Your task to perform on an android device: Search for pizza restaurants on Maps Image 0: 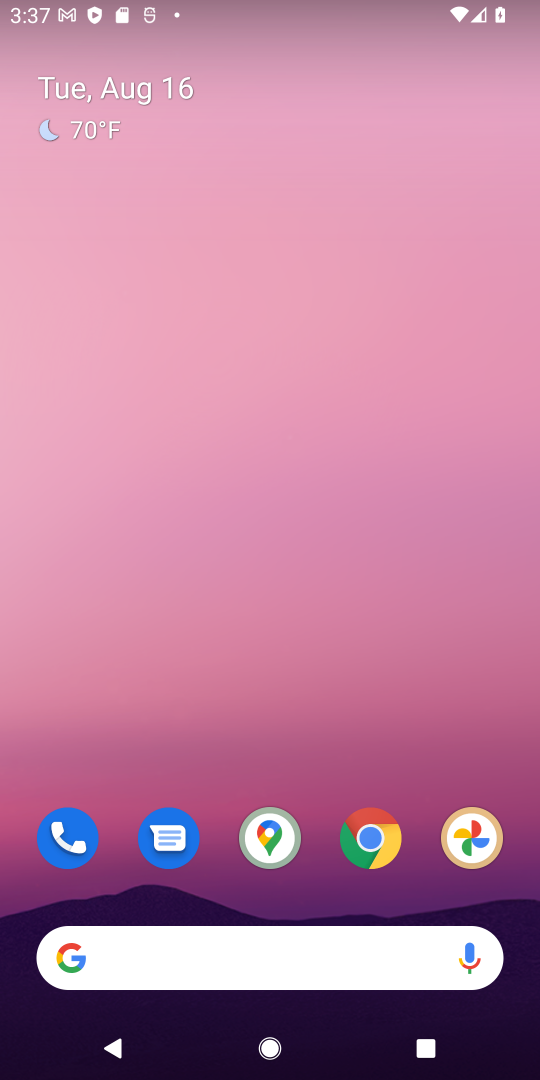
Step 0: click (287, 857)
Your task to perform on an android device: Search for pizza restaurants on Maps Image 1: 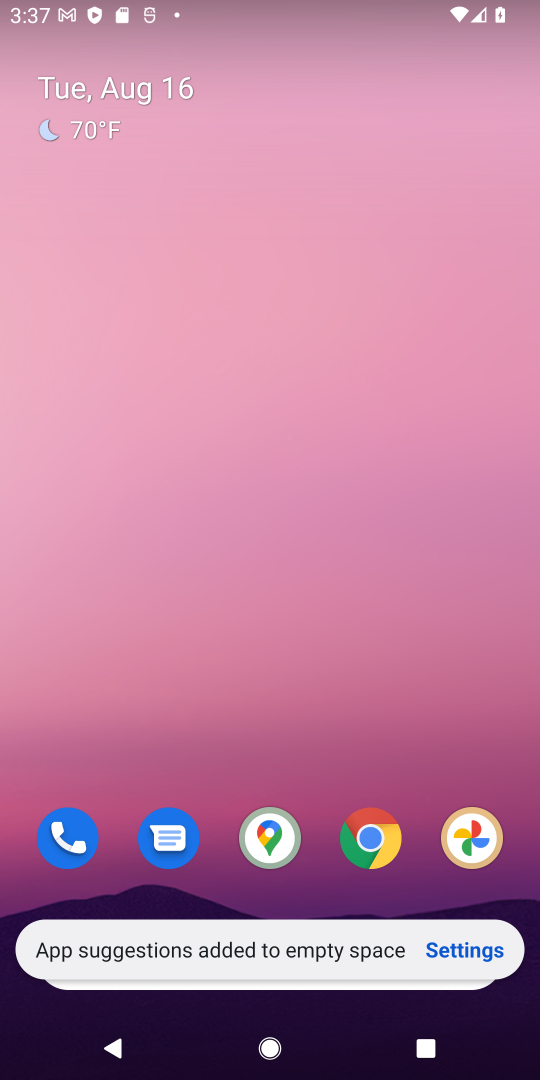
Step 1: click (287, 857)
Your task to perform on an android device: Search for pizza restaurants on Maps Image 2: 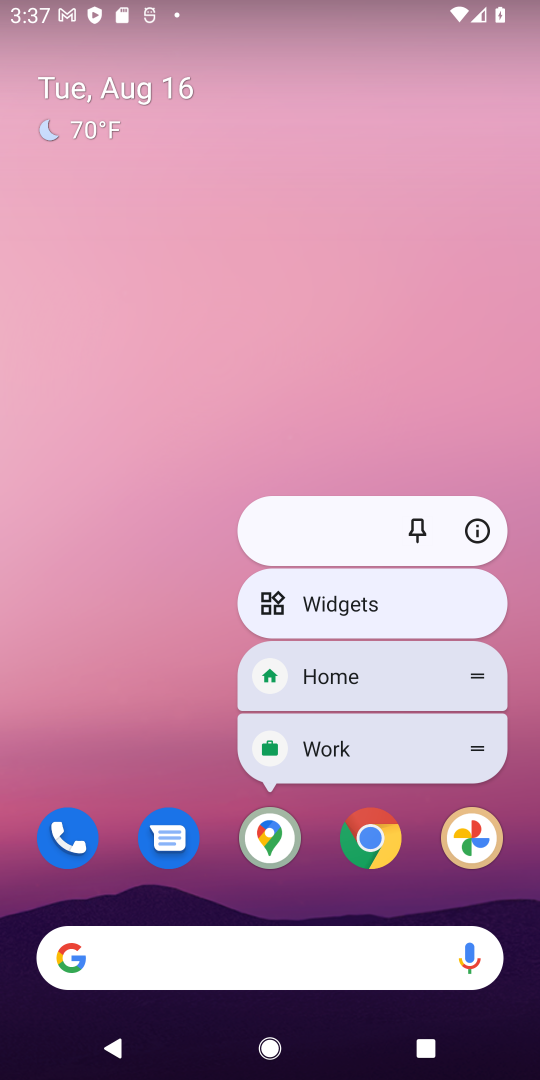
Step 2: click (287, 857)
Your task to perform on an android device: Search for pizza restaurants on Maps Image 3: 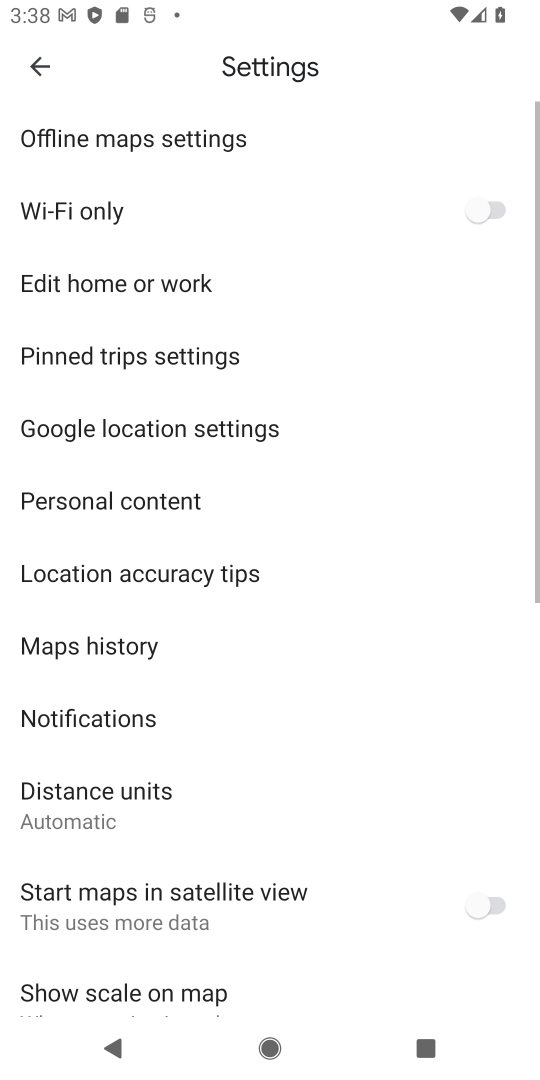
Step 3: click (58, 70)
Your task to perform on an android device: Search for pizza restaurants on Maps Image 4: 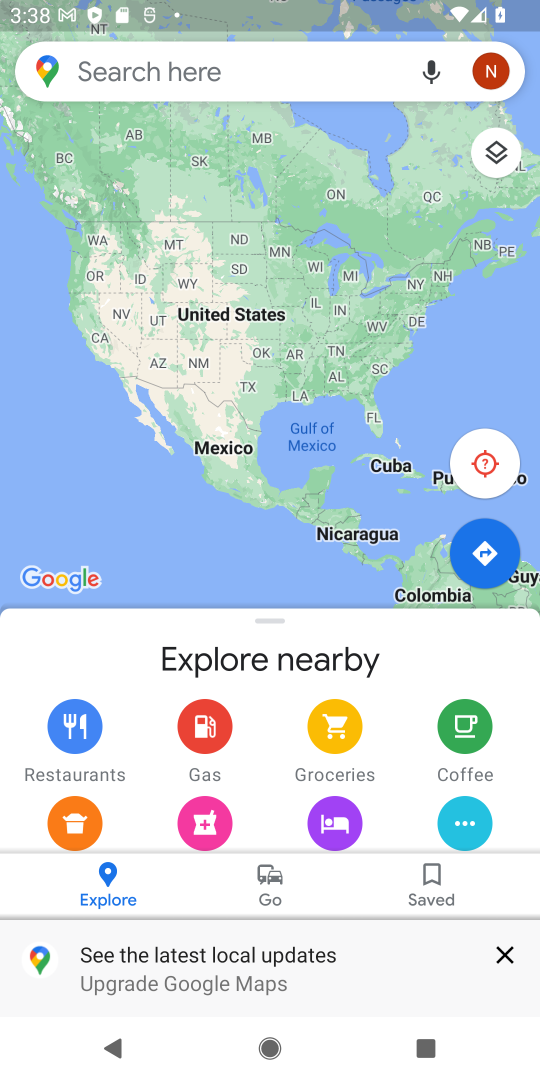
Step 4: click (161, 74)
Your task to perform on an android device: Search for pizza restaurants on Maps Image 5: 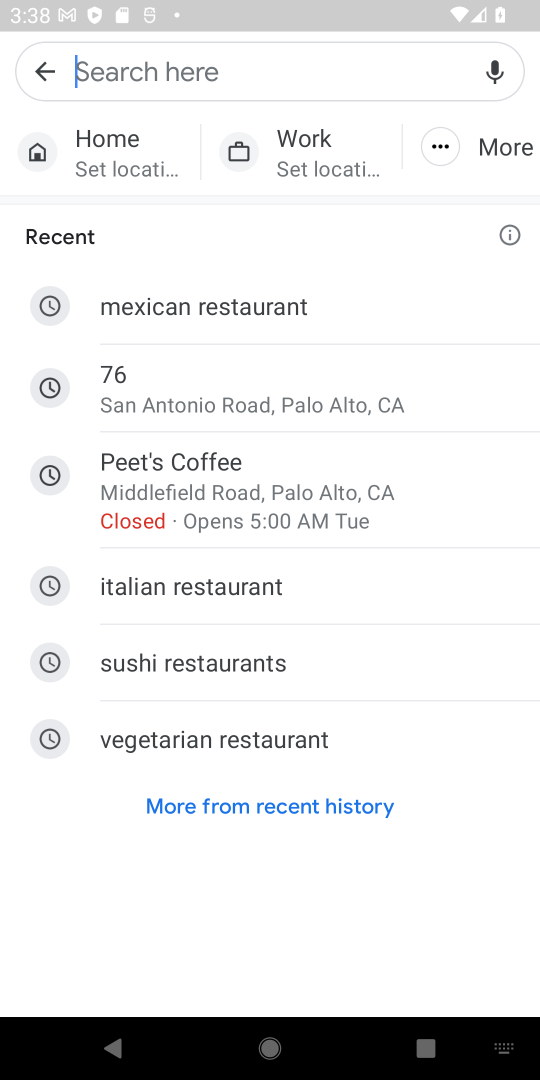
Step 5: type "pizza restaurants"
Your task to perform on an android device: Search for pizza restaurants on Maps Image 6: 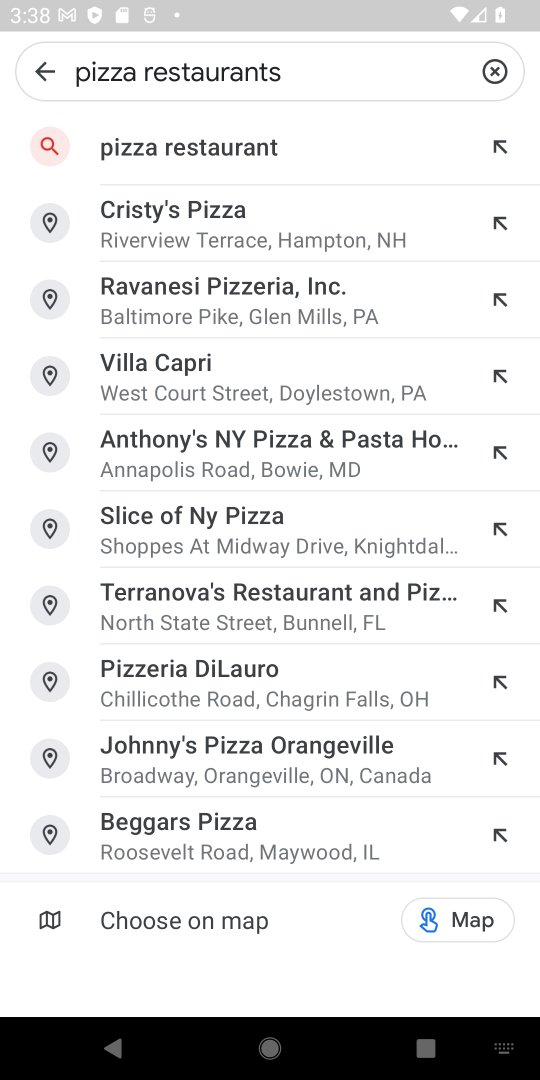
Step 6: click (206, 131)
Your task to perform on an android device: Search for pizza restaurants on Maps Image 7: 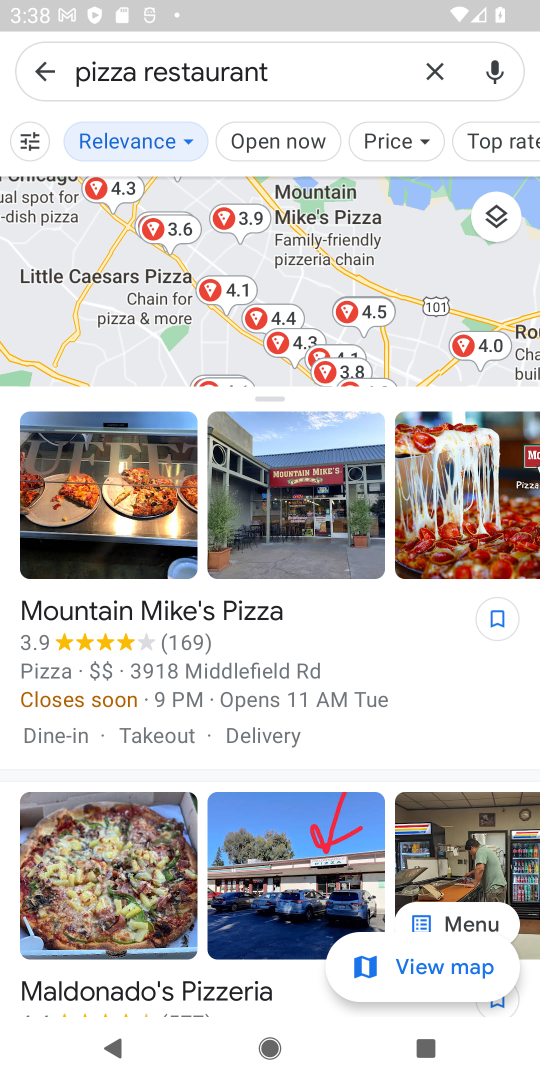
Step 7: task complete